Your task to perform on an android device: change the clock display to analog Image 0: 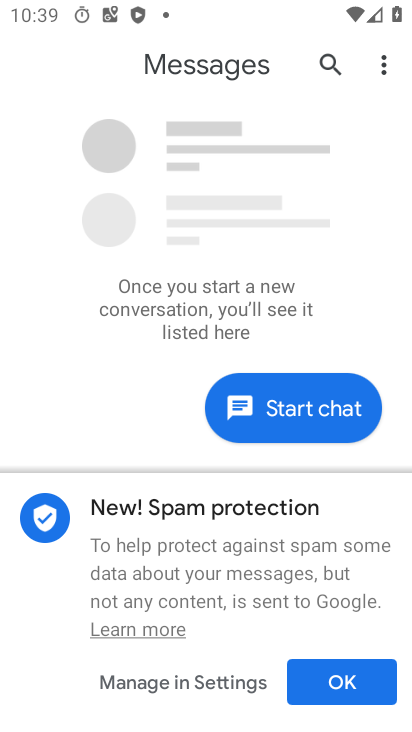
Step 0: press back button
Your task to perform on an android device: change the clock display to analog Image 1: 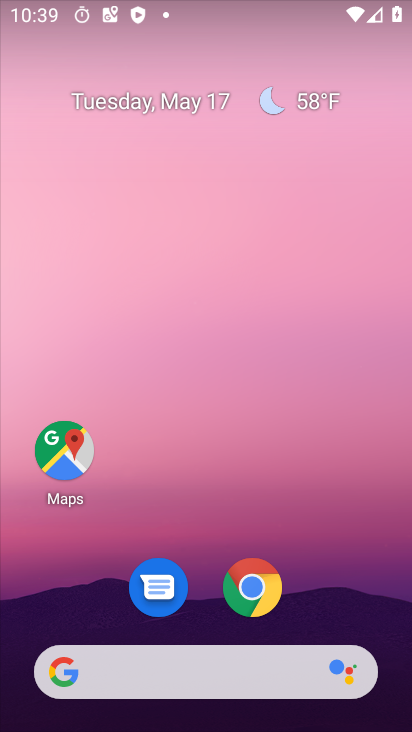
Step 1: drag from (312, 587) to (242, 199)
Your task to perform on an android device: change the clock display to analog Image 2: 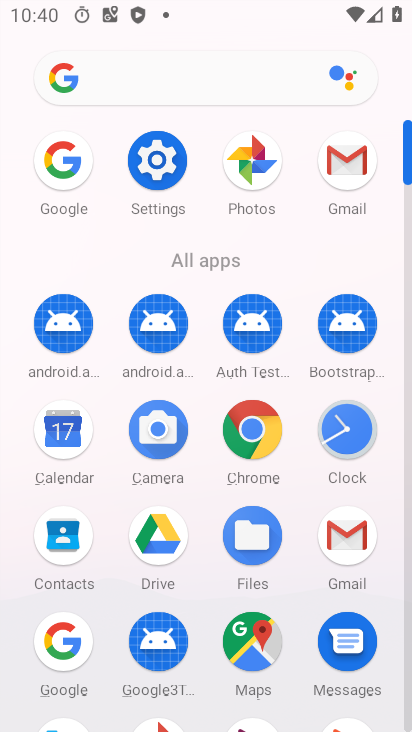
Step 2: click (346, 429)
Your task to perform on an android device: change the clock display to analog Image 3: 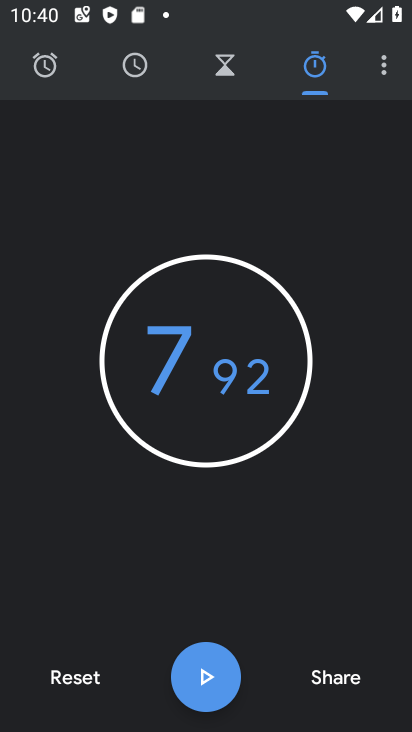
Step 3: click (385, 68)
Your task to perform on an android device: change the clock display to analog Image 4: 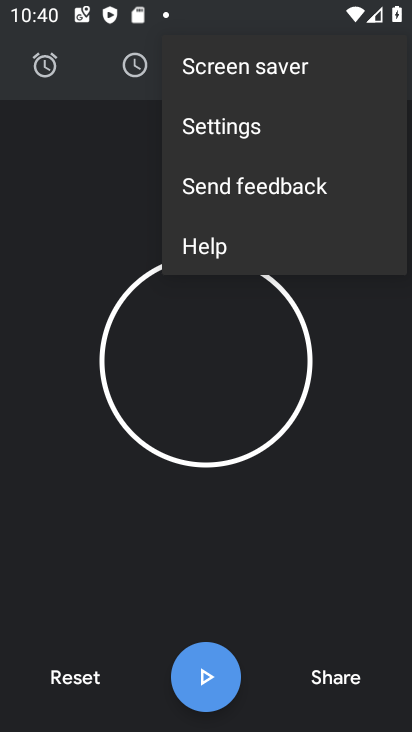
Step 4: click (232, 135)
Your task to perform on an android device: change the clock display to analog Image 5: 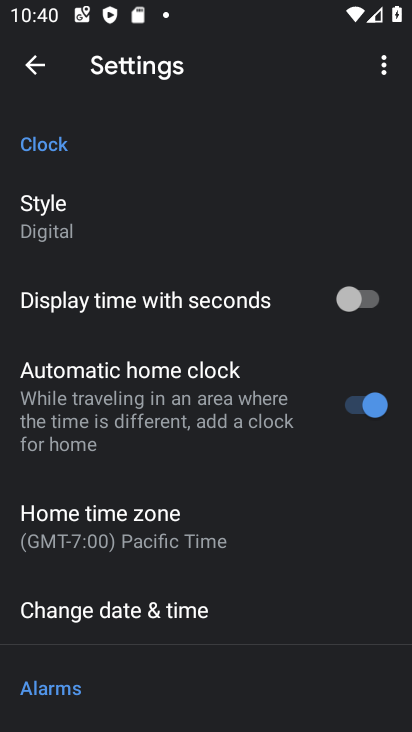
Step 5: click (70, 223)
Your task to perform on an android device: change the clock display to analog Image 6: 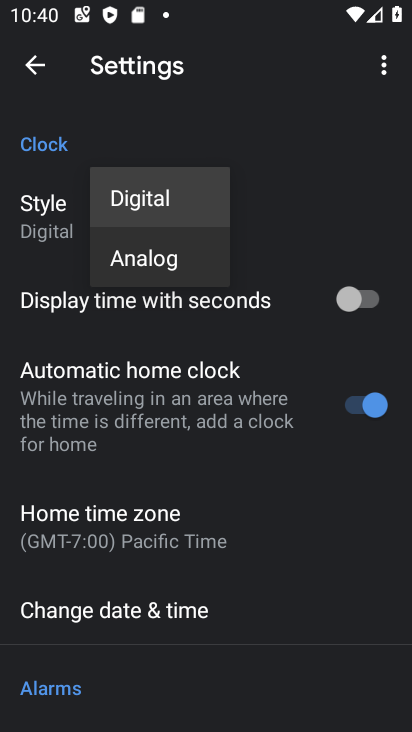
Step 6: click (145, 262)
Your task to perform on an android device: change the clock display to analog Image 7: 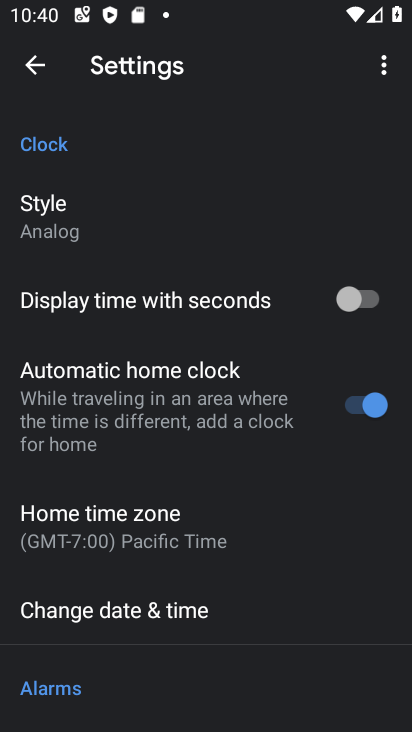
Step 7: task complete